Your task to perform on an android device: Open location settings Image 0: 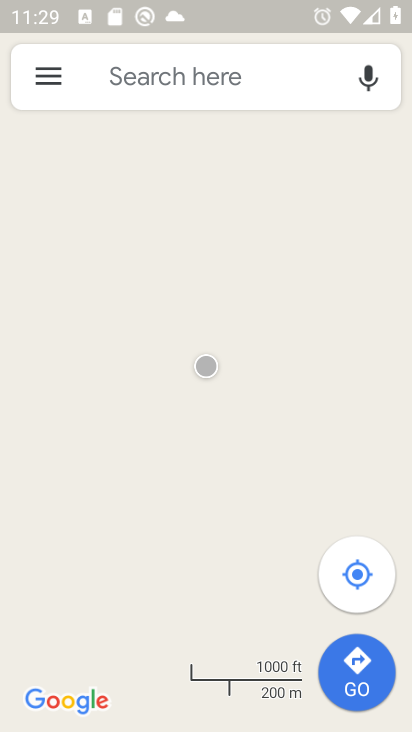
Step 0: press home button
Your task to perform on an android device: Open location settings Image 1: 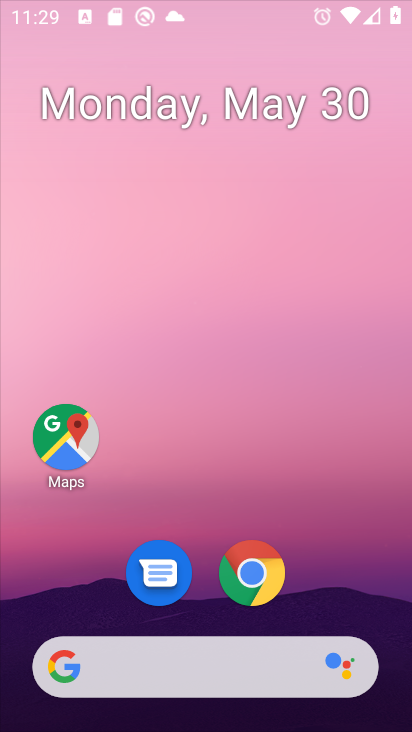
Step 1: drag from (152, 698) to (240, 151)
Your task to perform on an android device: Open location settings Image 2: 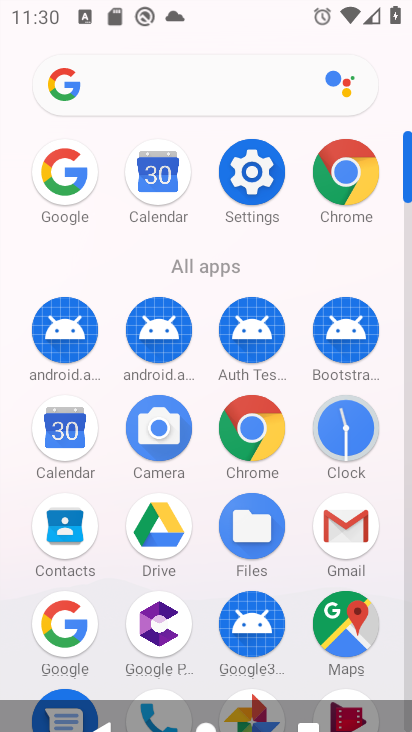
Step 2: click (252, 208)
Your task to perform on an android device: Open location settings Image 3: 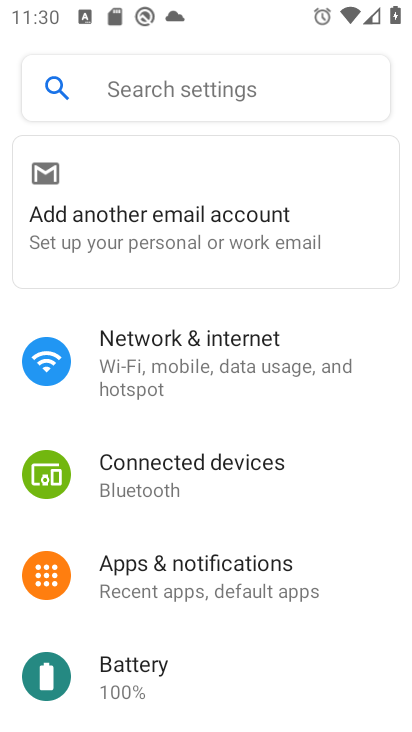
Step 3: drag from (145, 623) to (249, 250)
Your task to perform on an android device: Open location settings Image 4: 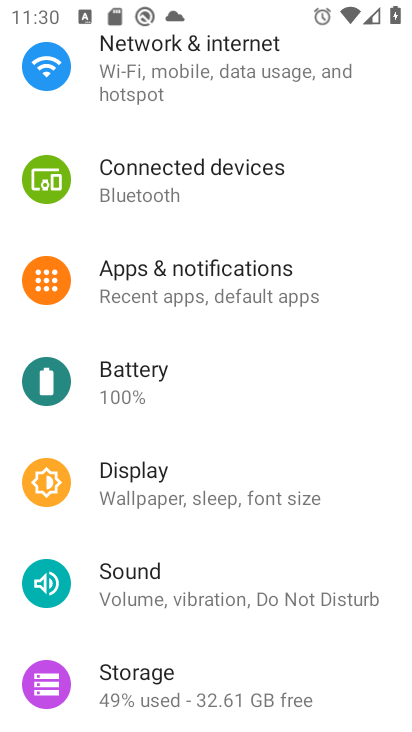
Step 4: drag from (166, 571) to (258, 243)
Your task to perform on an android device: Open location settings Image 5: 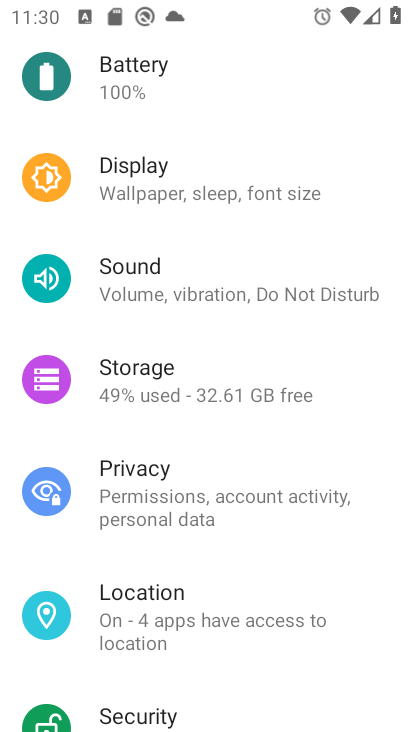
Step 5: click (173, 622)
Your task to perform on an android device: Open location settings Image 6: 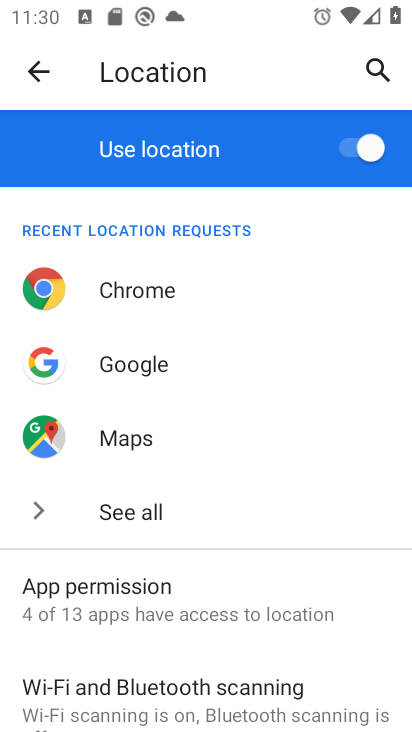
Step 6: task complete